Your task to perform on an android device: empty trash in google photos Image 0: 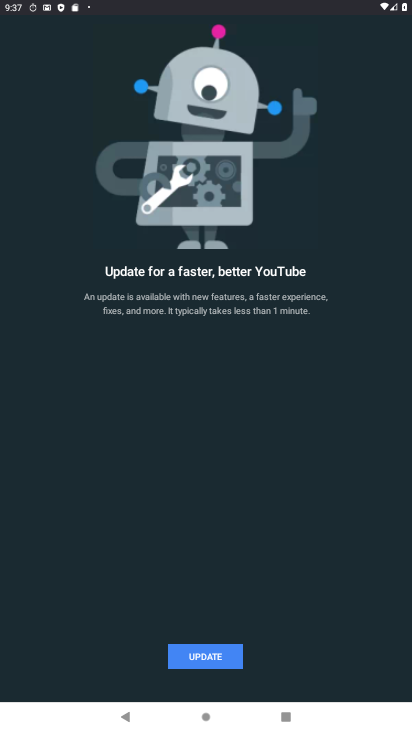
Step 0: press back button
Your task to perform on an android device: empty trash in google photos Image 1: 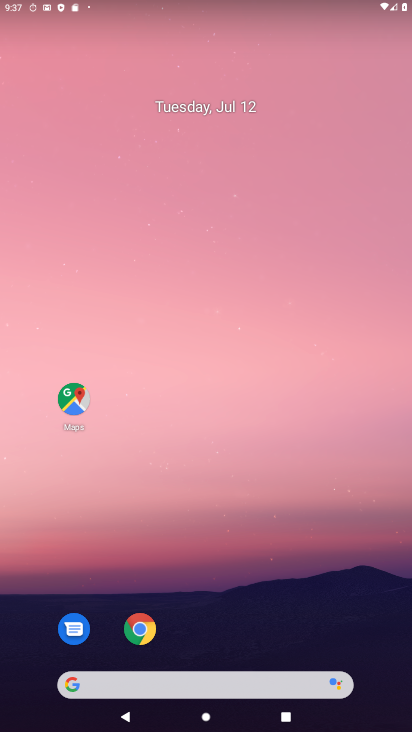
Step 1: drag from (264, 683) to (227, 126)
Your task to perform on an android device: empty trash in google photos Image 2: 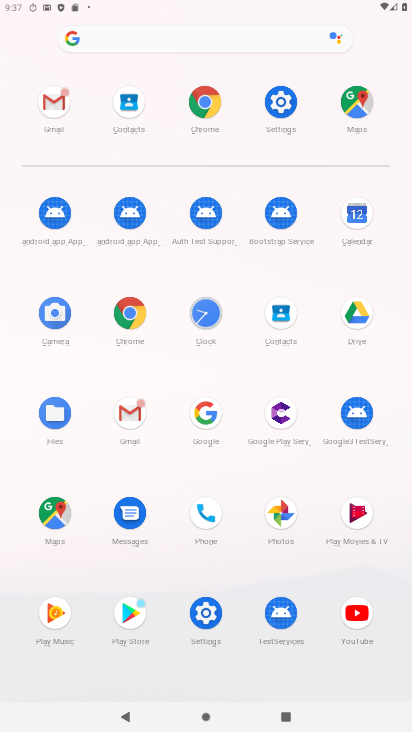
Step 2: click (274, 500)
Your task to perform on an android device: empty trash in google photos Image 3: 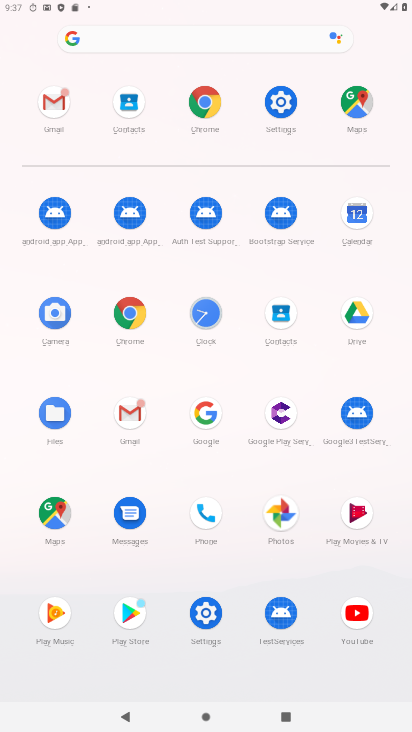
Step 3: click (282, 499)
Your task to perform on an android device: empty trash in google photos Image 4: 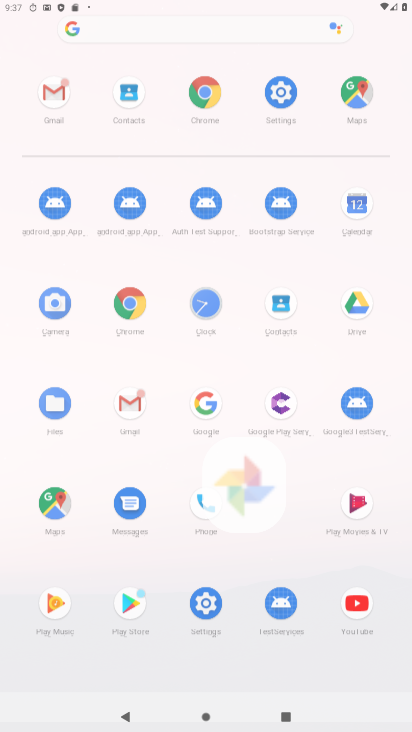
Step 4: click (282, 499)
Your task to perform on an android device: empty trash in google photos Image 5: 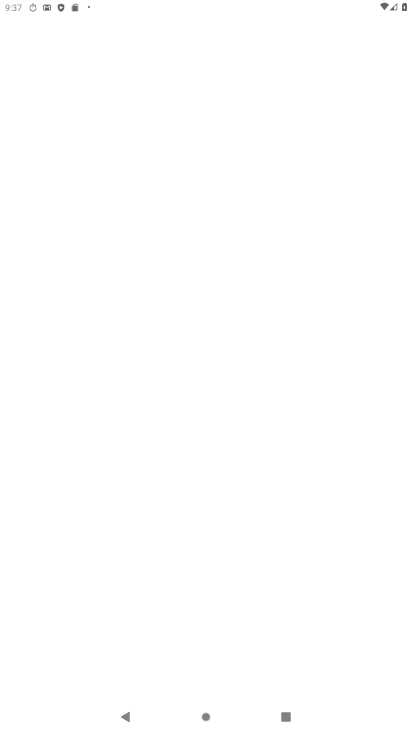
Step 5: click (288, 499)
Your task to perform on an android device: empty trash in google photos Image 6: 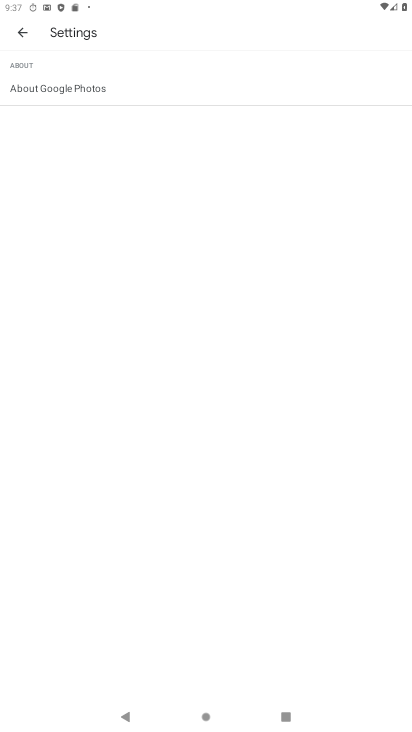
Step 6: click (21, 37)
Your task to perform on an android device: empty trash in google photos Image 7: 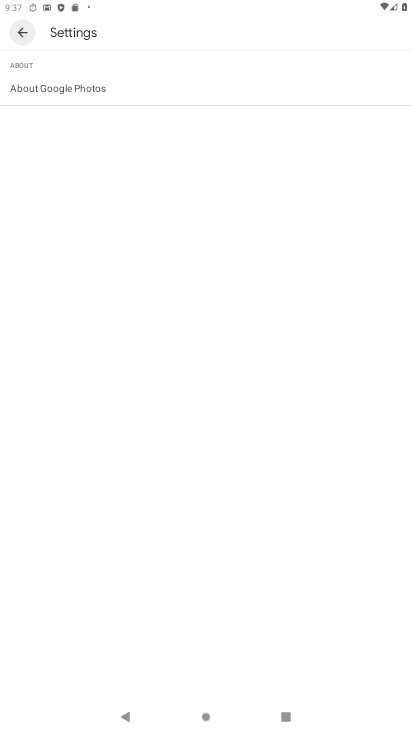
Step 7: click (21, 37)
Your task to perform on an android device: empty trash in google photos Image 8: 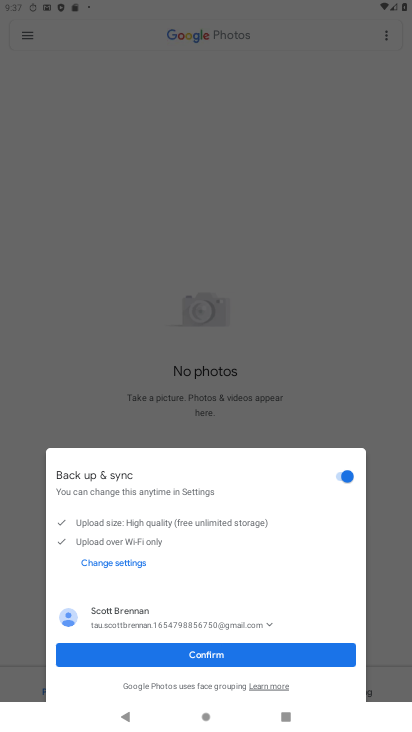
Step 8: drag from (278, 268) to (272, 111)
Your task to perform on an android device: empty trash in google photos Image 9: 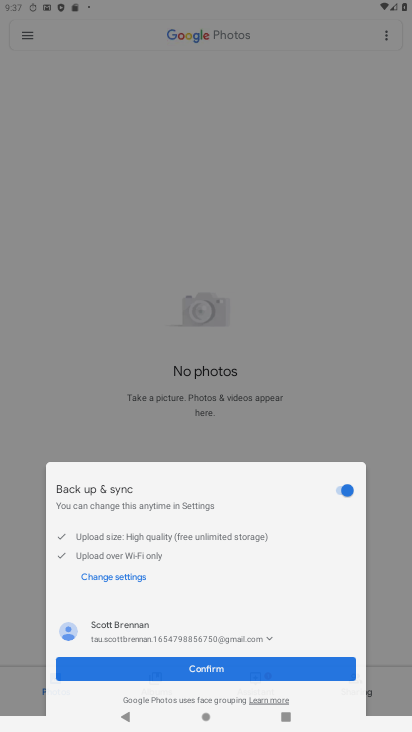
Step 9: click (277, 106)
Your task to perform on an android device: empty trash in google photos Image 10: 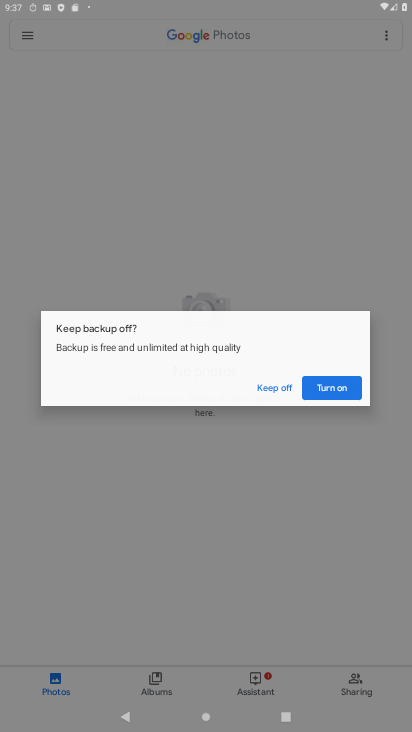
Step 10: click (280, 103)
Your task to perform on an android device: empty trash in google photos Image 11: 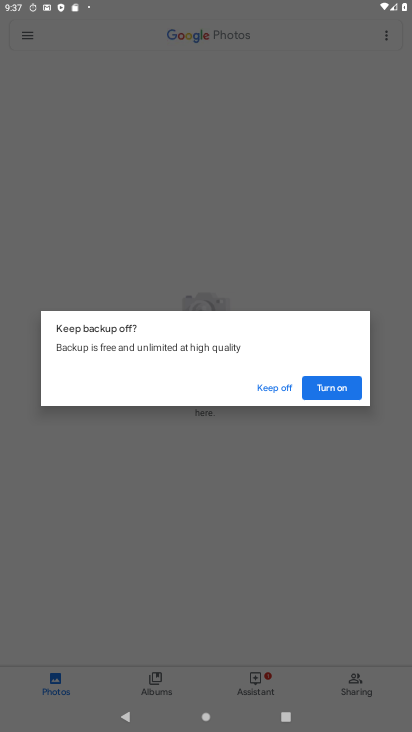
Step 11: click (280, 102)
Your task to perform on an android device: empty trash in google photos Image 12: 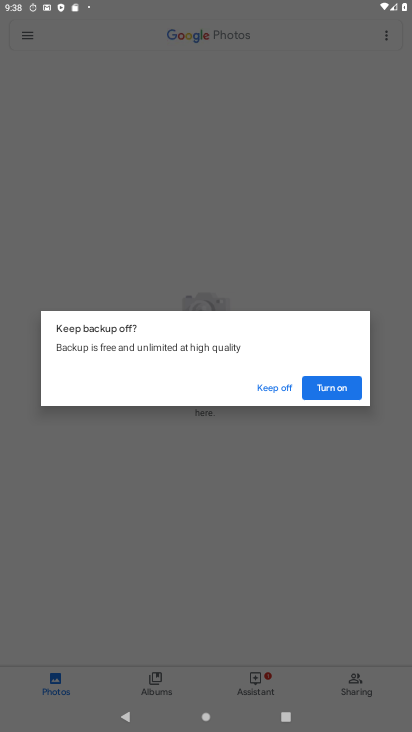
Step 12: click (262, 378)
Your task to perform on an android device: empty trash in google photos Image 13: 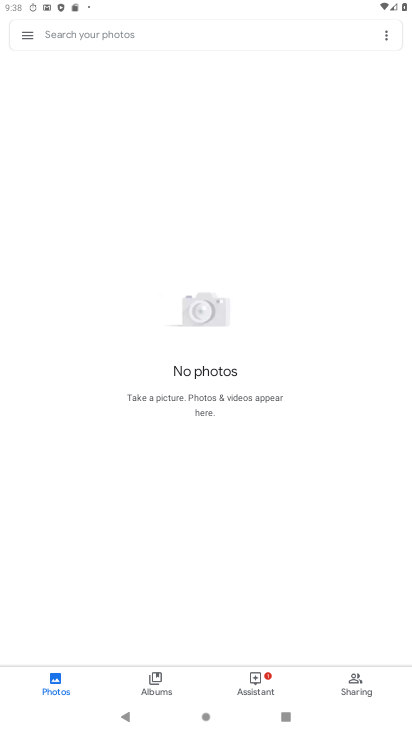
Step 13: task complete